Your task to perform on an android device: Open Google Chrome Image 0: 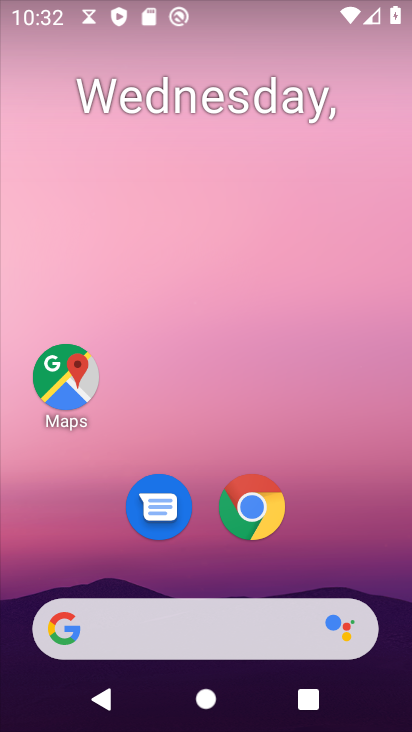
Step 0: drag from (221, 662) to (123, 180)
Your task to perform on an android device: Open Google Chrome Image 1: 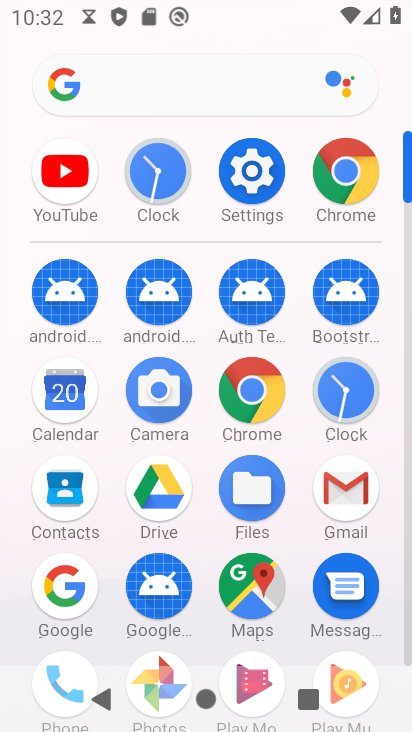
Step 1: click (350, 149)
Your task to perform on an android device: Open Google Chrome Image 2: 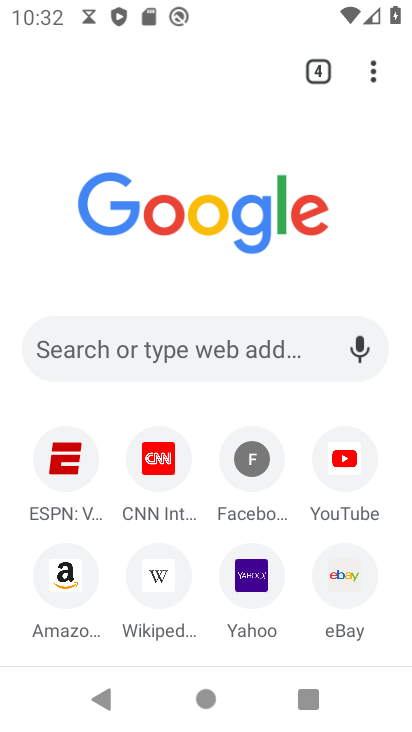
Step 2: click (378, 79)
Your task to perform on an android device: Open Google Chrome Image 3: 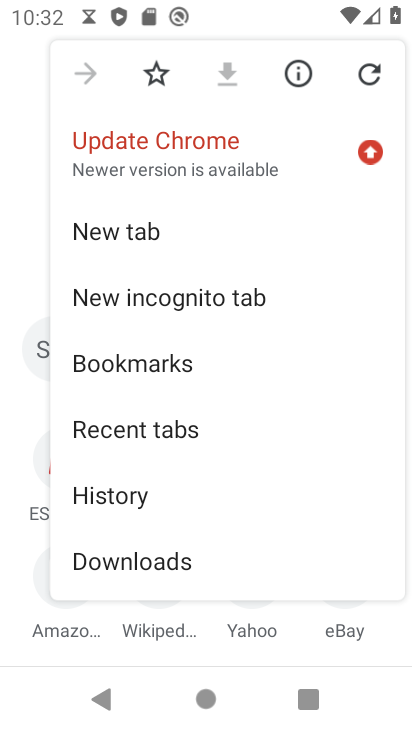
Step 3: drag from (171, 504) to (174, 335)
Your task to perform on an android device: Open Google Chrome Image 4: 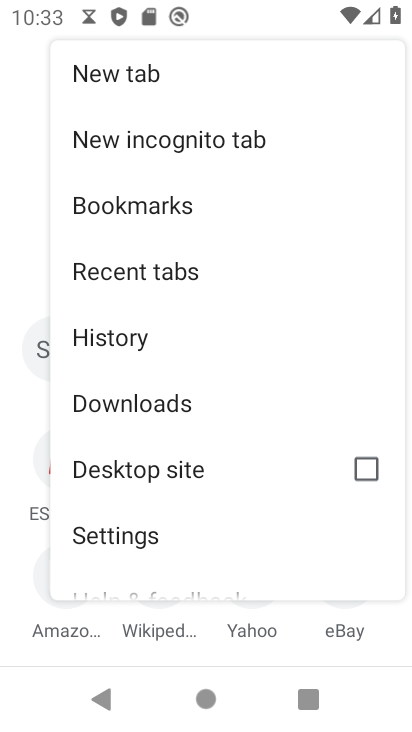
Step 4: drag from (167, 524) to (155, 389)
Your task to perform on an android device: Open Google Chrome Image 5: 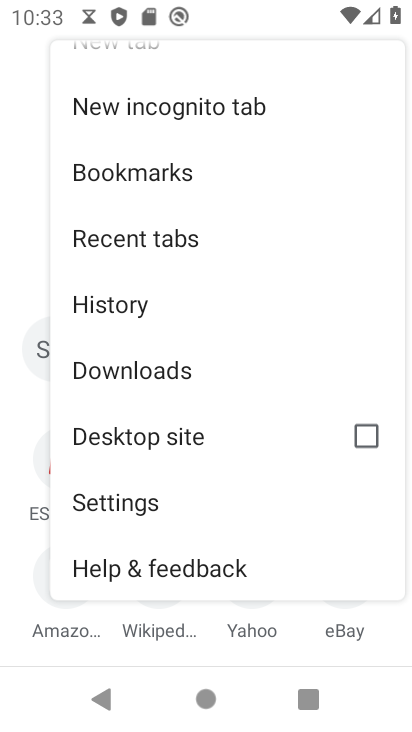
Step 5: drag from (180, 181) to (165, 551)
Your task to perform on an android device: Open Google Chrome Image 6: 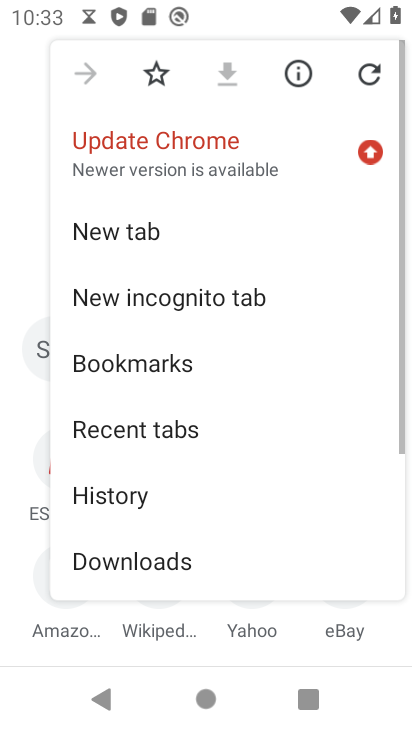
Step 6: click (126, 233)
Your task to perform on an android device: Open Google Chrome Image 7: 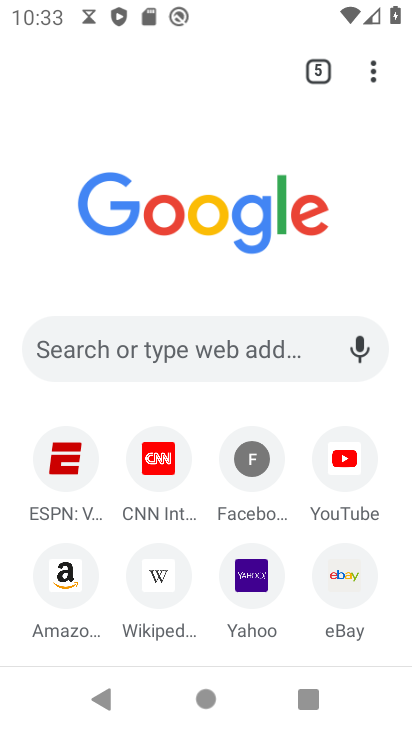
Step 7: task complete